Your task to perform on an android device: uninstall "Lyft - Rideshare, Bikes, Scooters & Transit" Image 0: 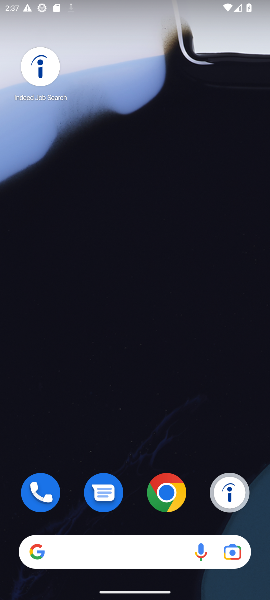
Step 0: drag from (192, 517) to (158, 36)
Your task to perform on an android device: uninstall "Lyft - Rideshare, Bikes, Scooters & Transit" Image 1: 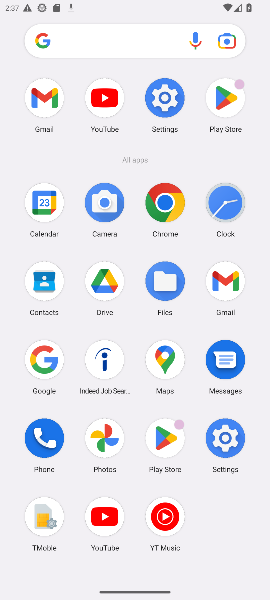
Step 1: click (225, 102)
Your task to perform on an android device: uninstall "Lyft - Rideshare, Bikes, Scooters & Transit" Image 2: 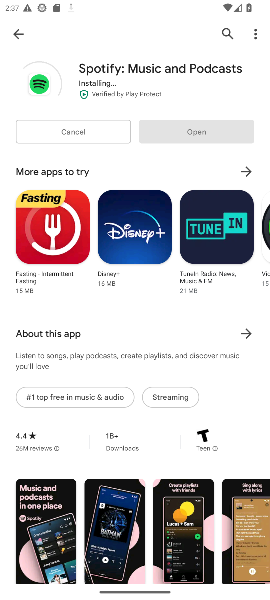
Step 2: click (230, 35)
Your task to perform on an android device: uninstall "Lyft - Rideshare, Bikes, Scooters & Transit" Image 3: 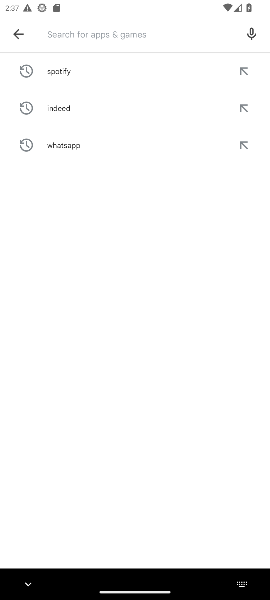
Step 3: type "lyst"
Your task to perform on an android device: uninstall "Lyft - Rideshare, Bikes, Scooters & Transit" Image 4: 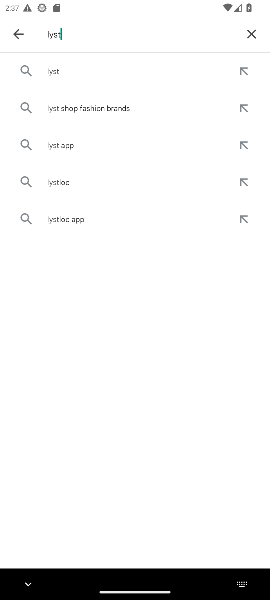
Step 4: click (252, 33)
Your task to perform on an android device: uninstall "Lyft - Rideshare, Bikes, Scooters & Transit" Image 5: 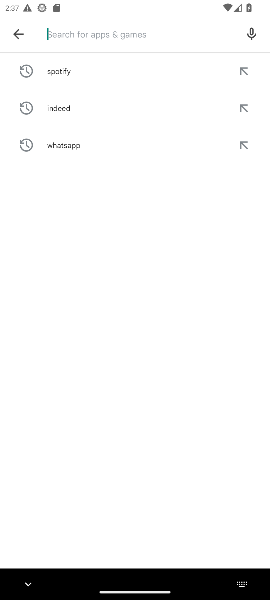
Step 5: type "lyft"
Your task to perform on an android device: uninstall "Lyft - Rideshare, Bikes, Scooters & Transit" Image 6: 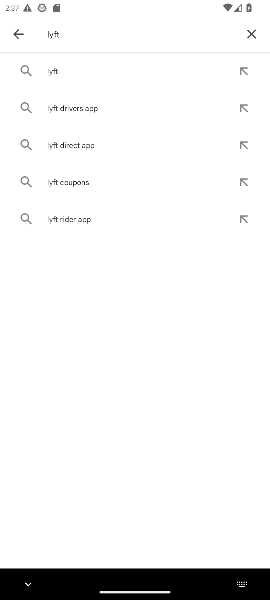
Step 6: click (107, 75)
Your task to perform on an android device: uninstall "Lyft - Rideshare, Bikes, Scooters & Transit" Image 7: 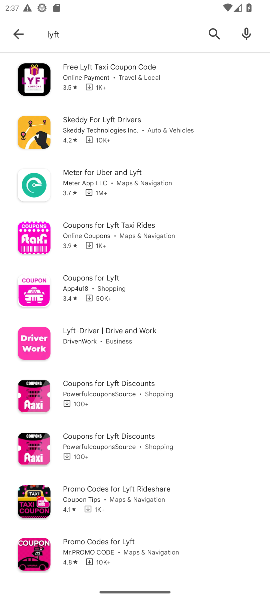
Step 7: task complete